Your task to perform on an android device: Go to network settings Image 0: 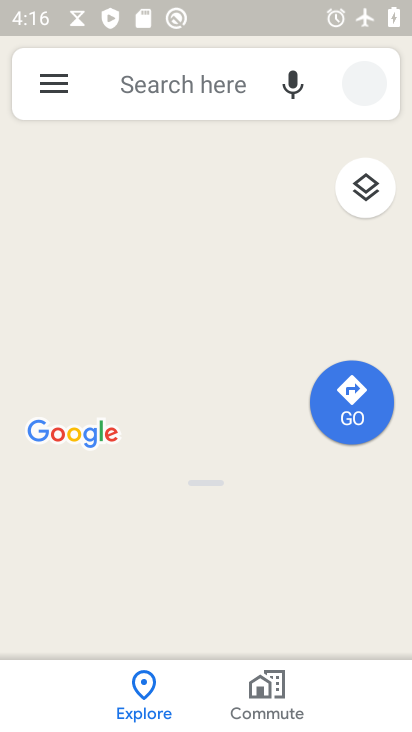
Step 0: press home button
Your task to perform on an android device: Go to network settings Image 1: 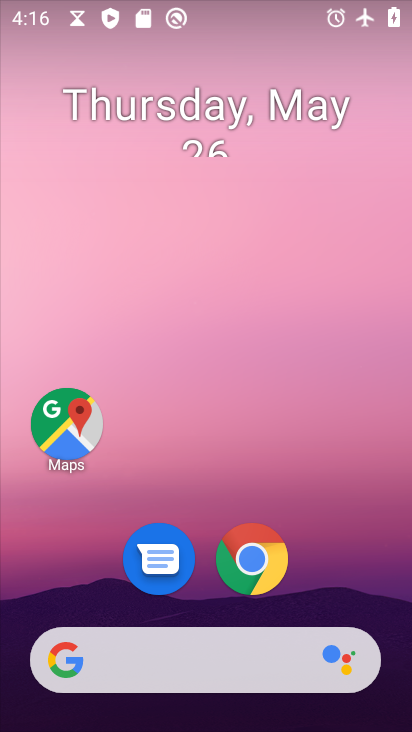
Step 1: drag from (305, 328) to (175, 15)
Your task to perform on an android device: Go to network settings Image 2: 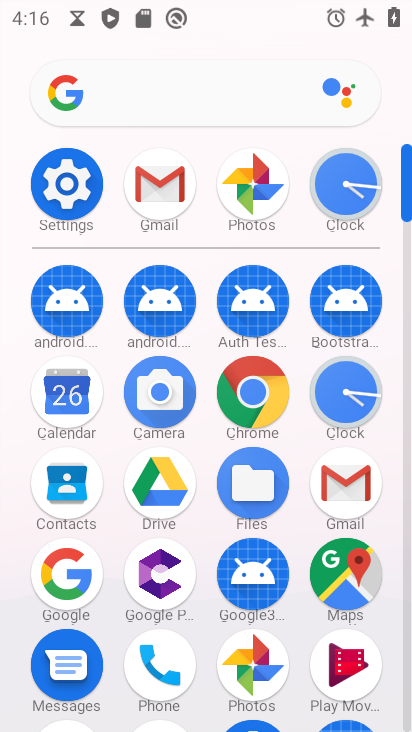
Step 2: click (66, 162)
Your task to perform on an android device: Go to network settings Image 3: 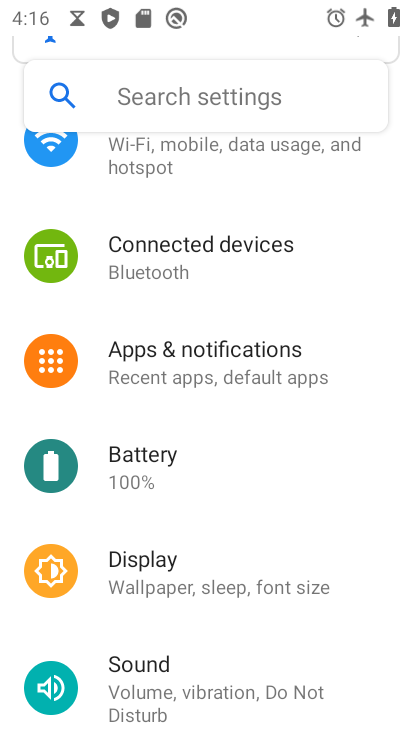
Step 3: click (229, 154)
Your task to perform on an android device: Go to network settings Image 4: 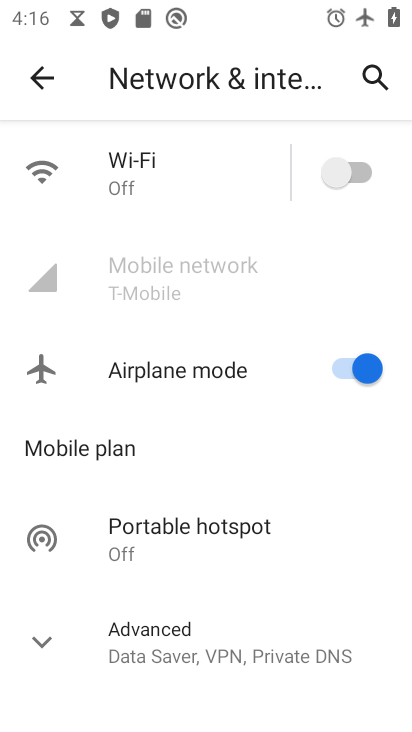
Step 4: task complete